Your task to perform on an android device: Open Reddit Image 0: 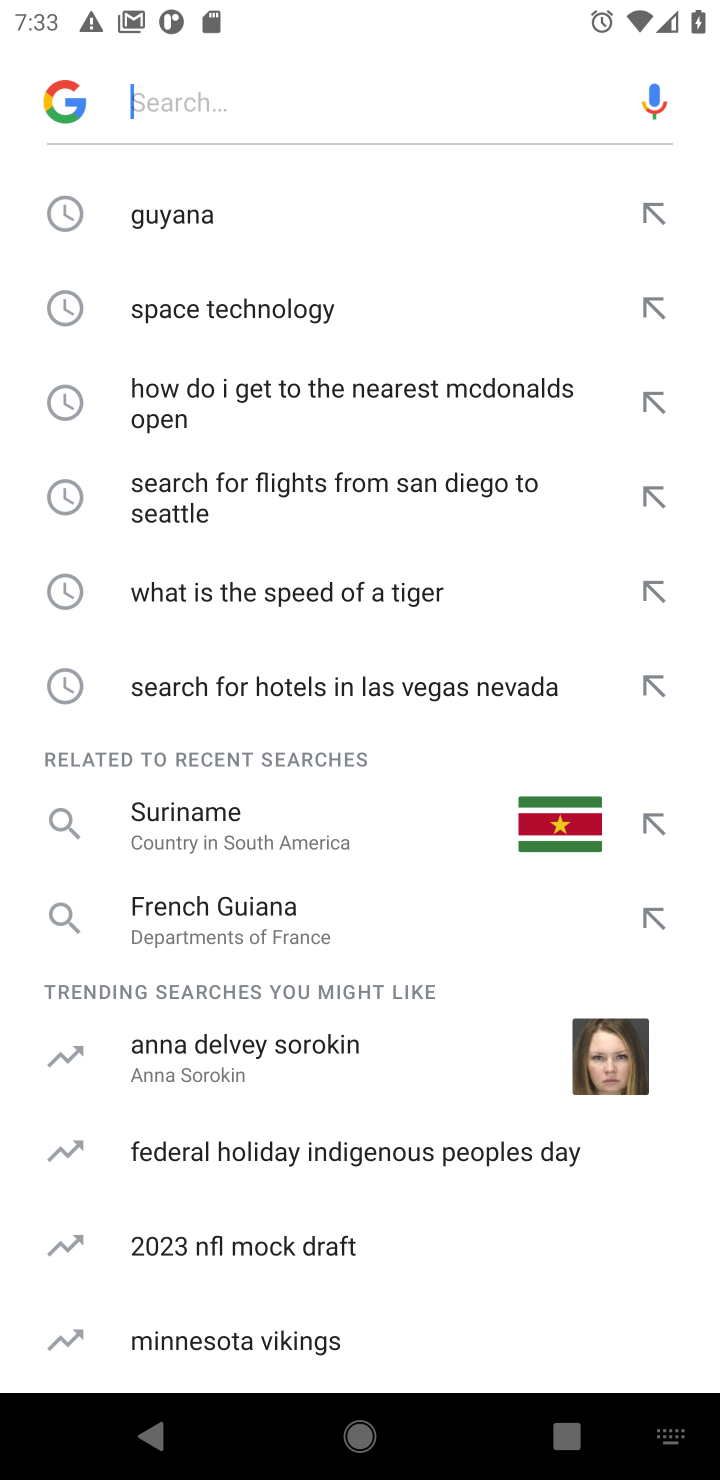
Step 0: type "reddit"
Your task to perform on an android device: Open Reddit Image 1: 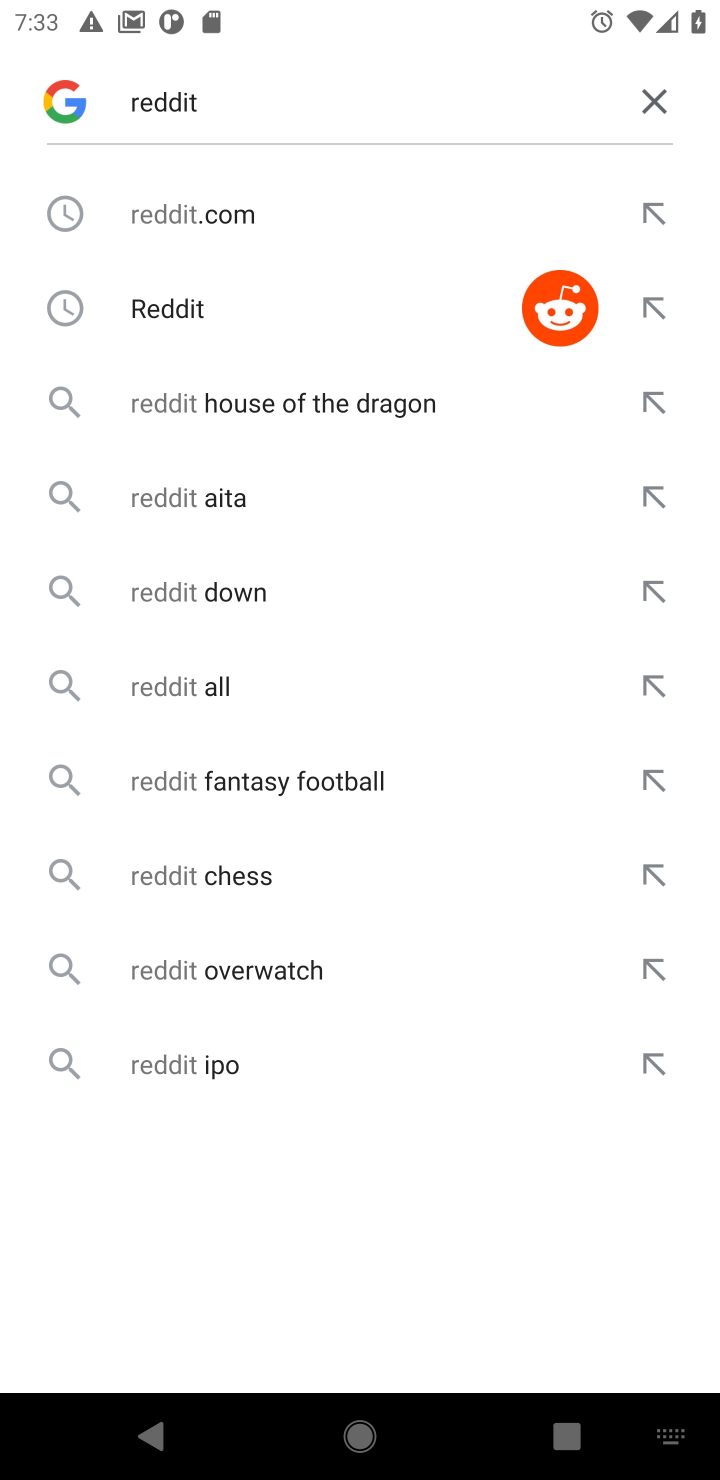
Step 1: click (173, 320)
Your task to perform on an android device: Open Reddit Image 2: 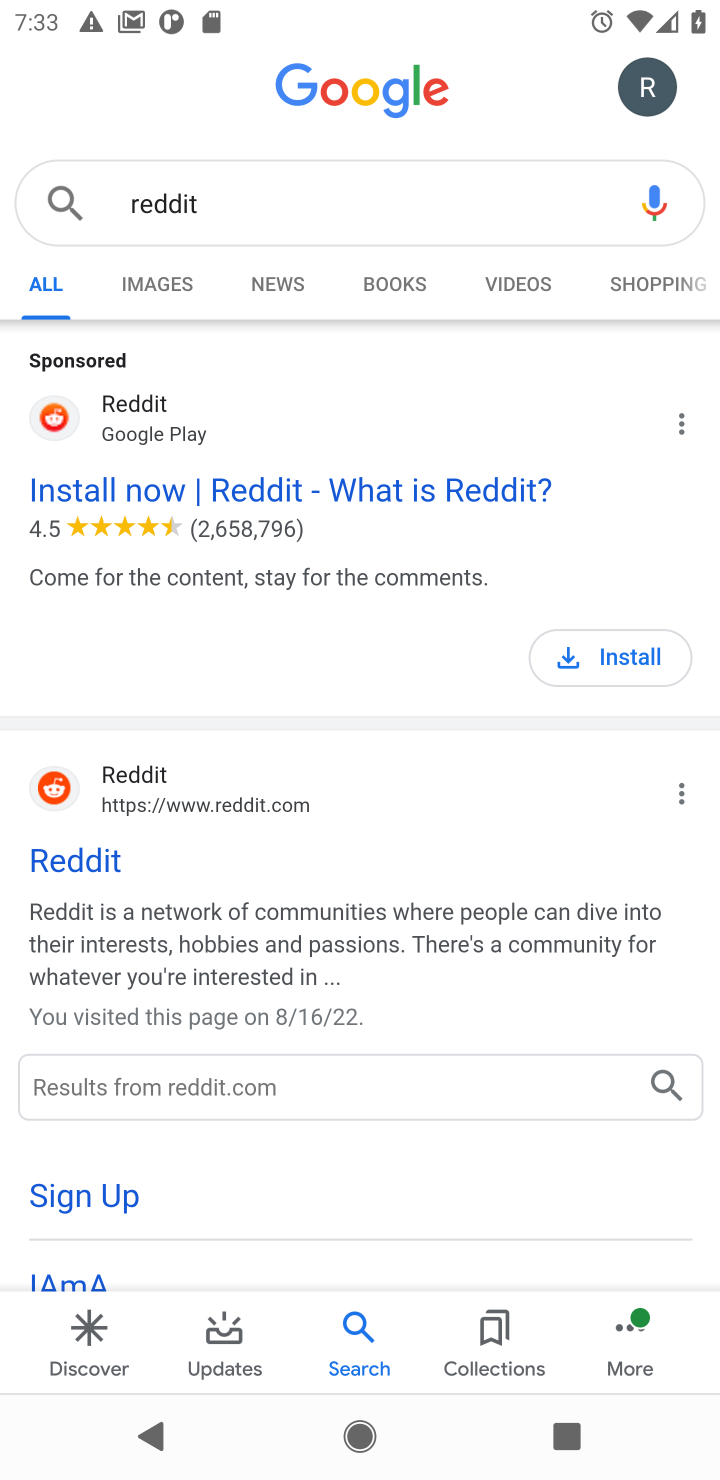
Step 2: click (83, 867)
Your task to perform on an android device: Open Reddit Image 3: 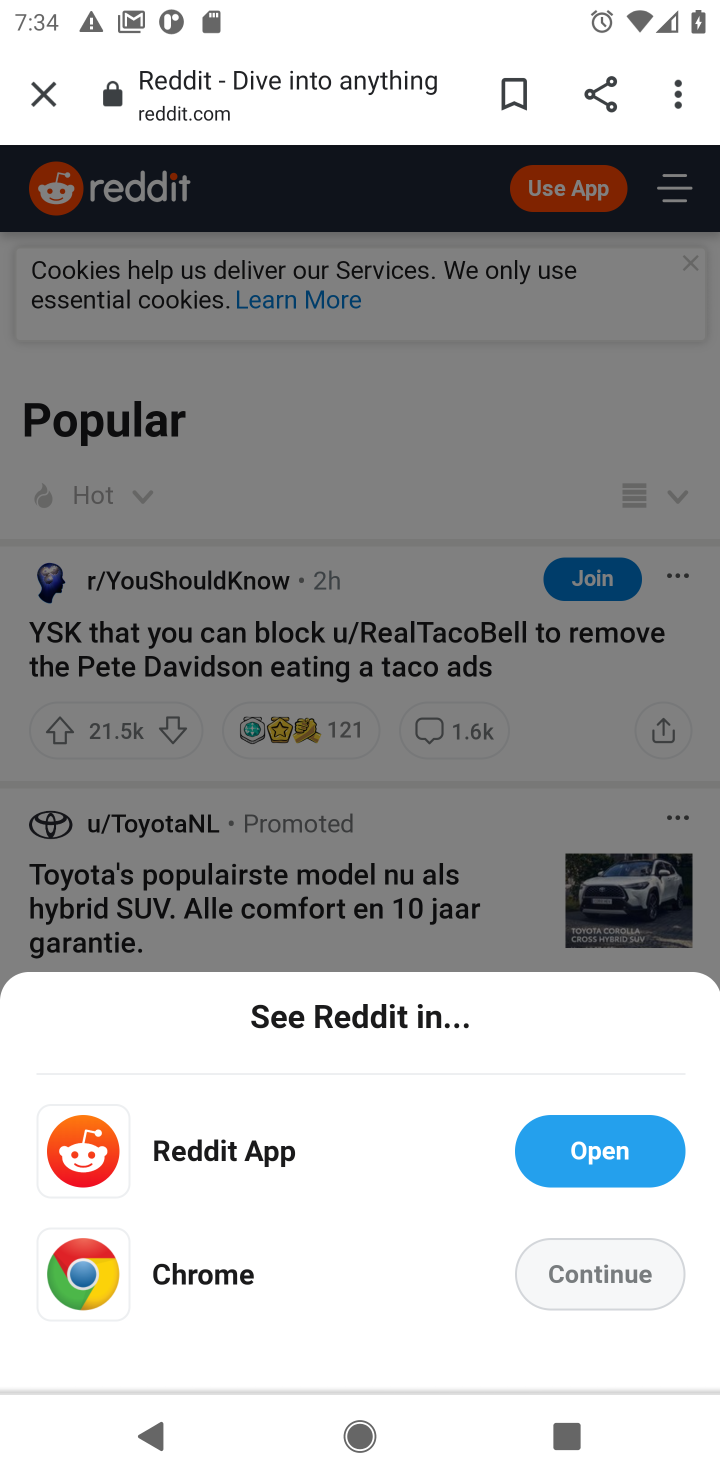
Step 3: click (599, 1262)
Your task to perform on an android device: Open Reddit Image 4: 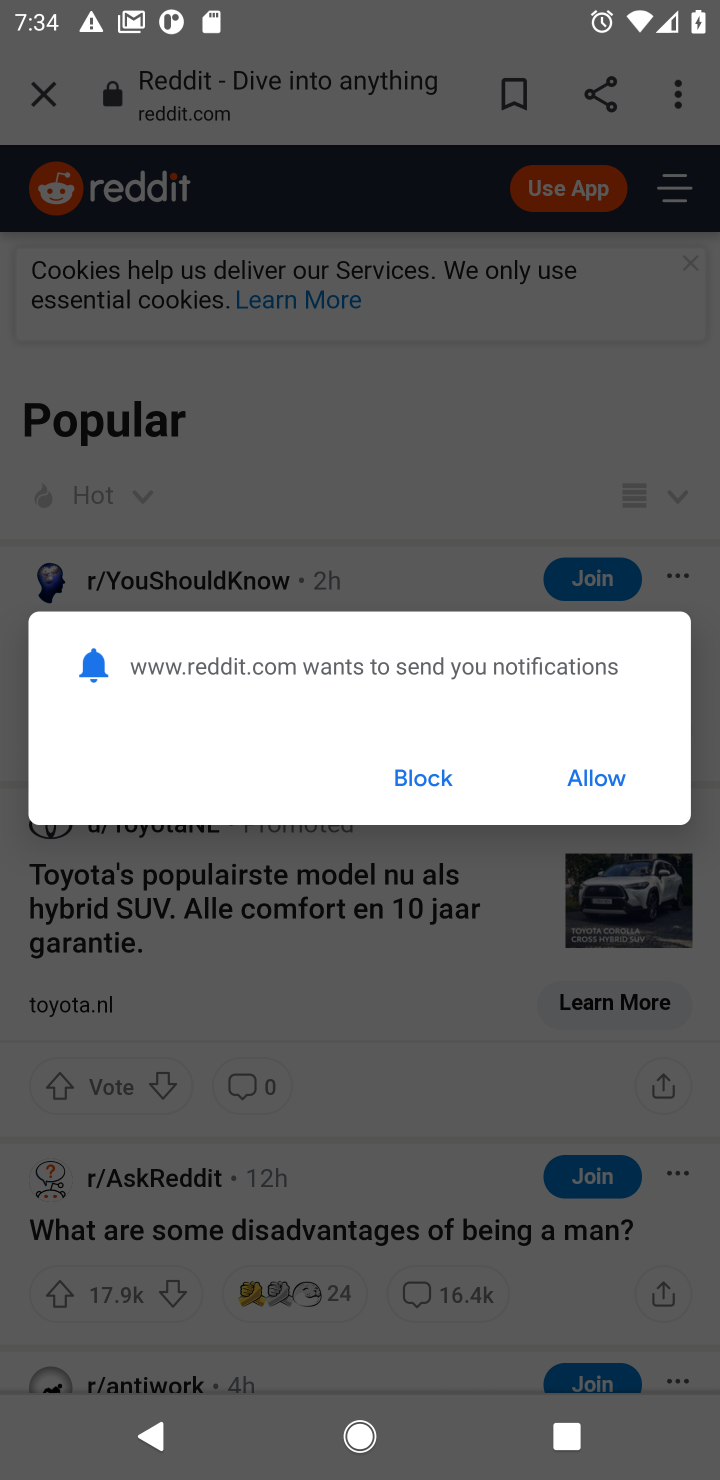
Step 4: click (435, 784)
Your task to perform on an android device: Open Reddit Image 5: 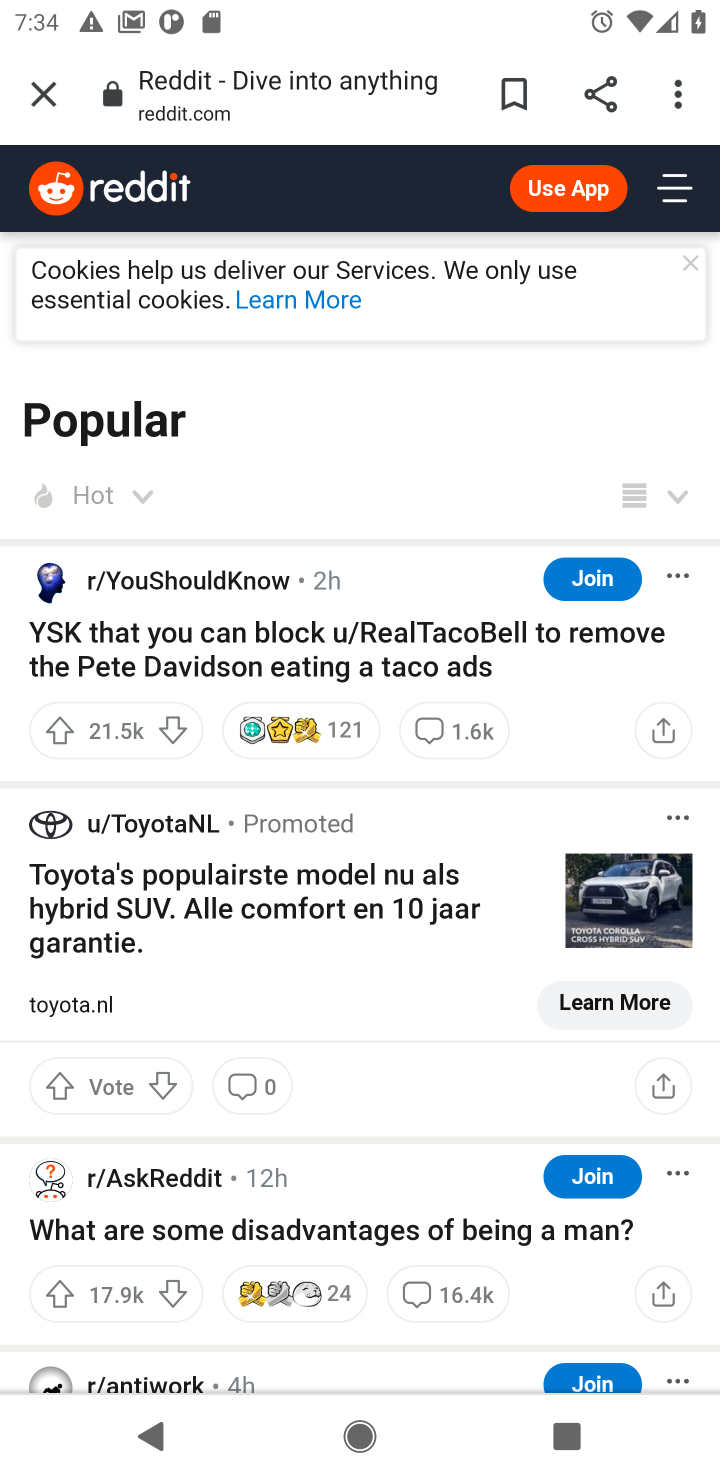
Step 5: task complete